Your task to perform on an android device: turn on wifi Image 0: 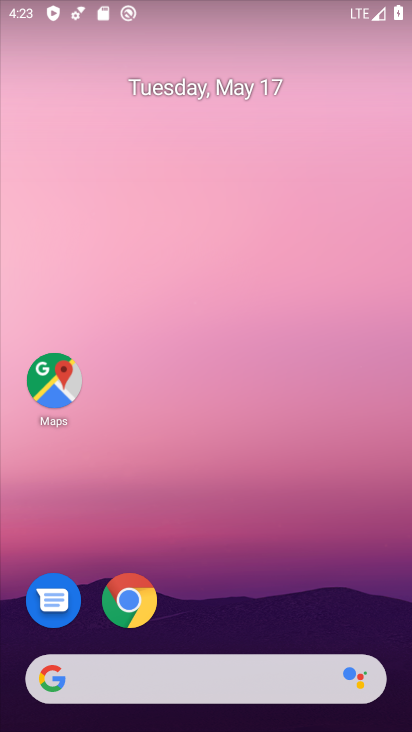
Step 0: drag from (301, 613) to (303, 139)
Your task to perform on an android device: turn on wifi Image 1: 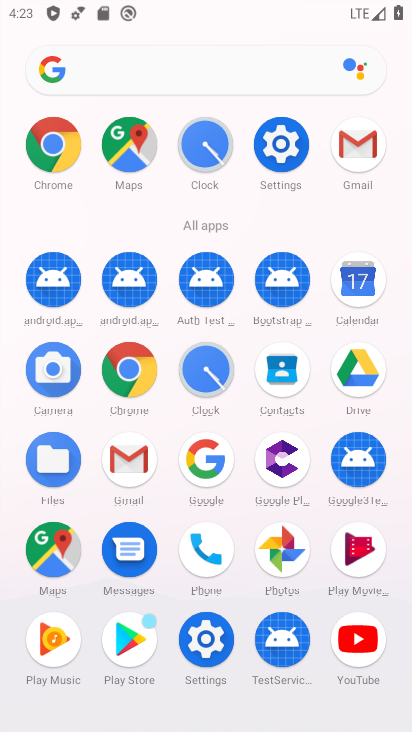
Step 1: click (196, 643)
Your task to perform on an android device: turn on wifi Image 2: 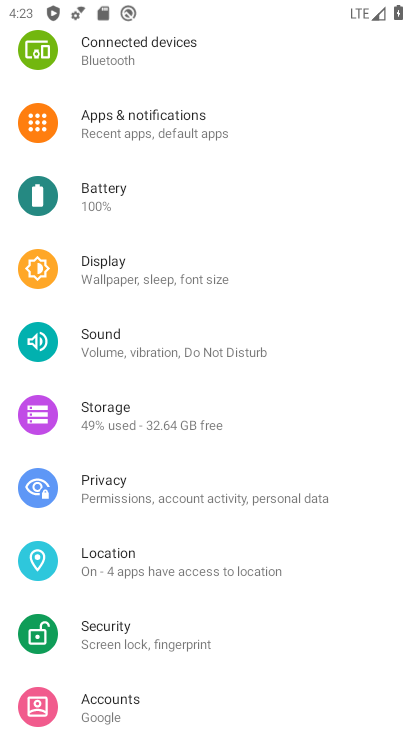
Step 2: drag from (300, 113) to (290, 505)
Your task to perform on an android device: turn on wifi Image 3: 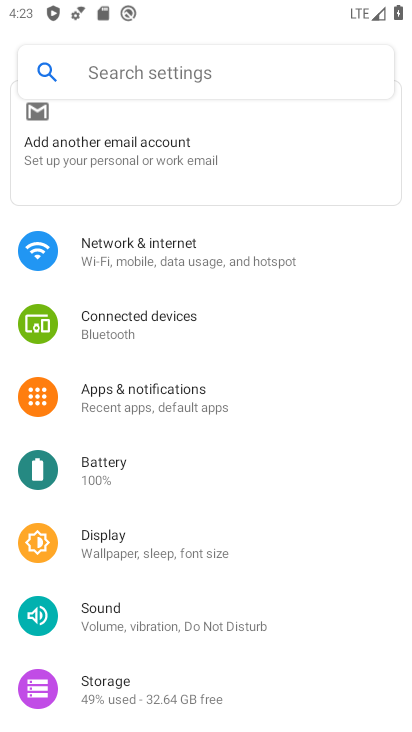
Step 3: click (120, 245)
Your task to perform on an android device: turn on wifi Image 4: 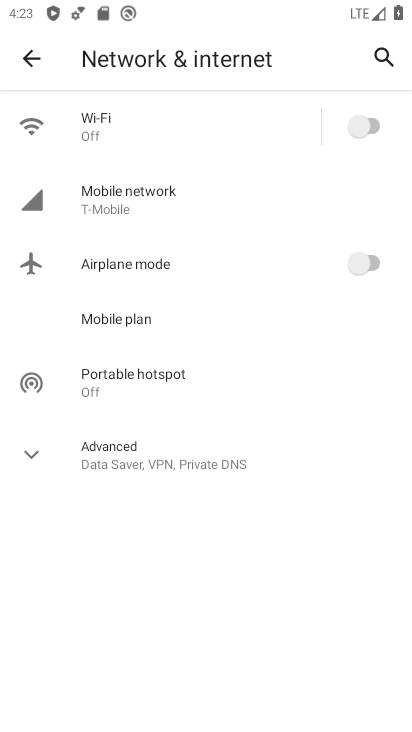
Step 4: click (368, 125)
Your task to perform on an android device: turn on wifi Image 5: 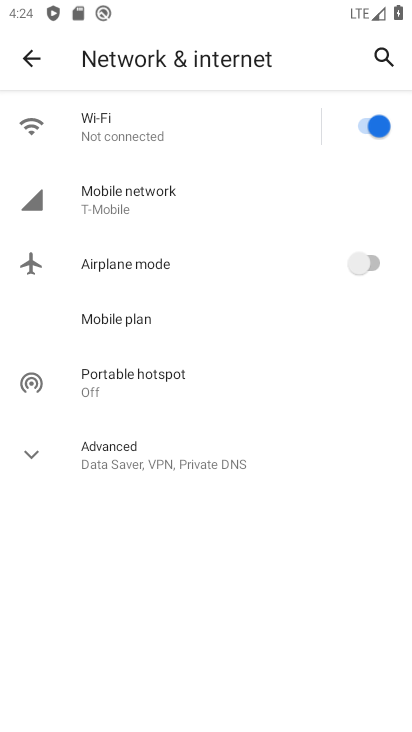
Step 5: task complete